Your task to perform on an android device: Check the weather Image 0: 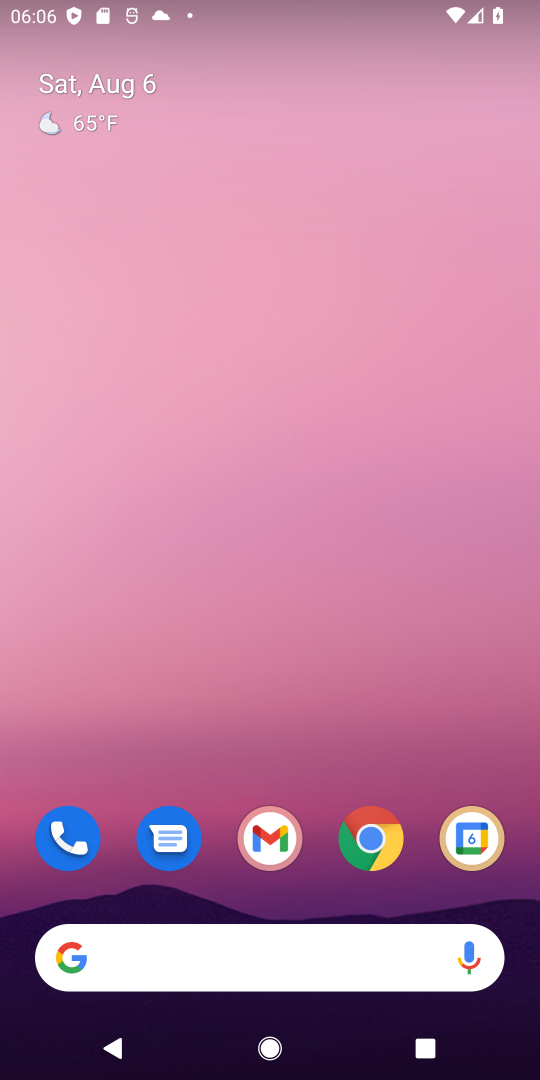
Step 0: drag from (274, 775) to (309, 25)
Your task to perform on an android device: Check the weather Image 1: 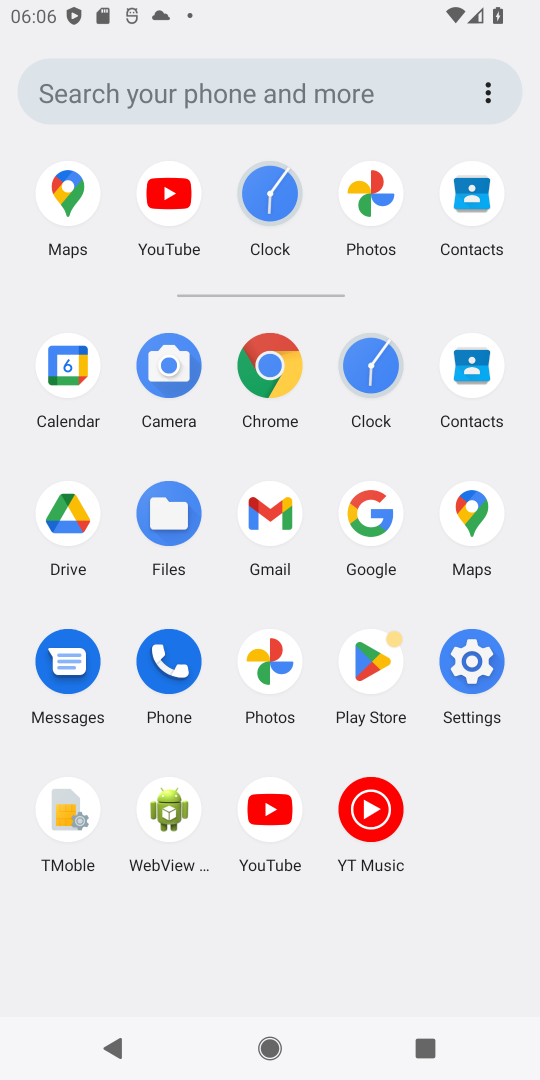
Step 1: click (258, 354)
Your task to perform on an android device: Check the weather Image 2: 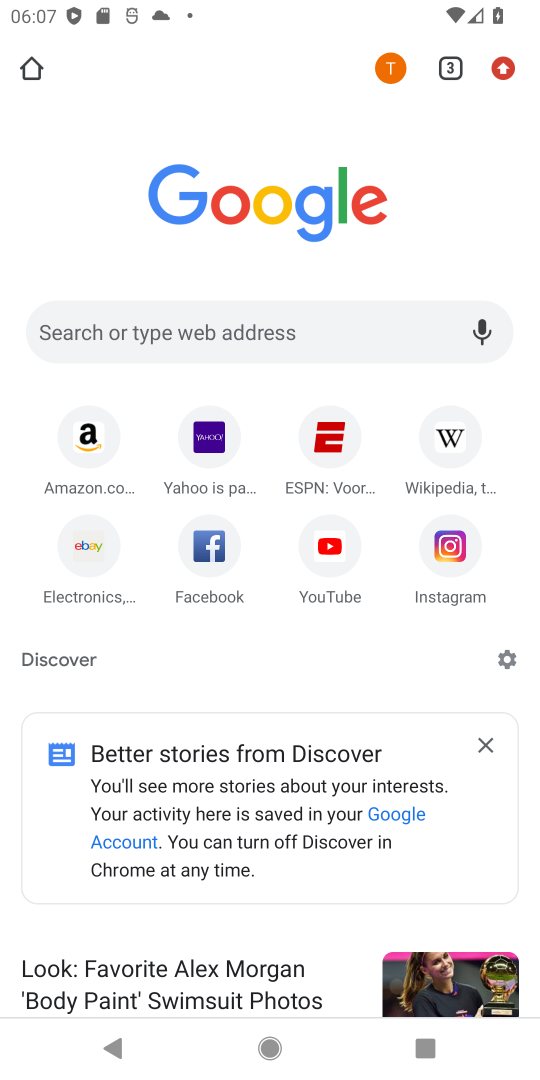
Step 2: click (231, 314)
Your task to perform on an android device: Check the weather Image 3: 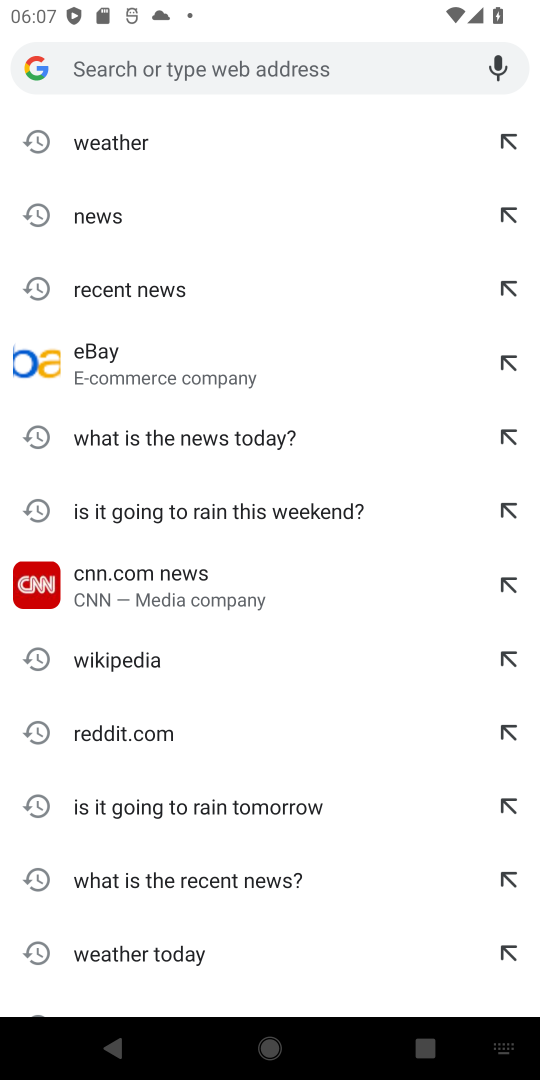
Step 3: click (119, 121)
Your task to perform on an android device: Check the weather Image 4: 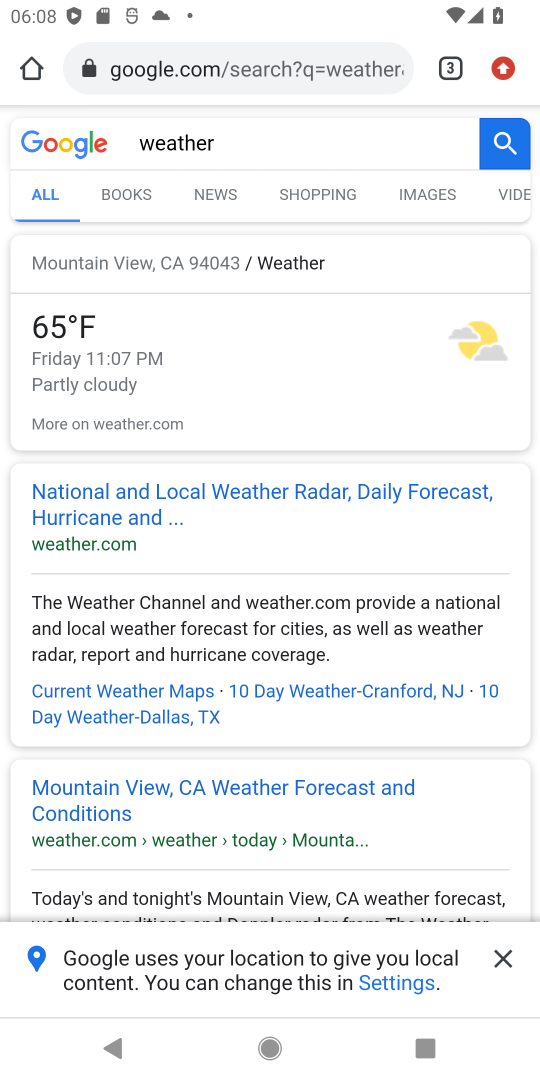
Step 4: task complete